Your task to perform on an android device: turn off wifi Image 0: 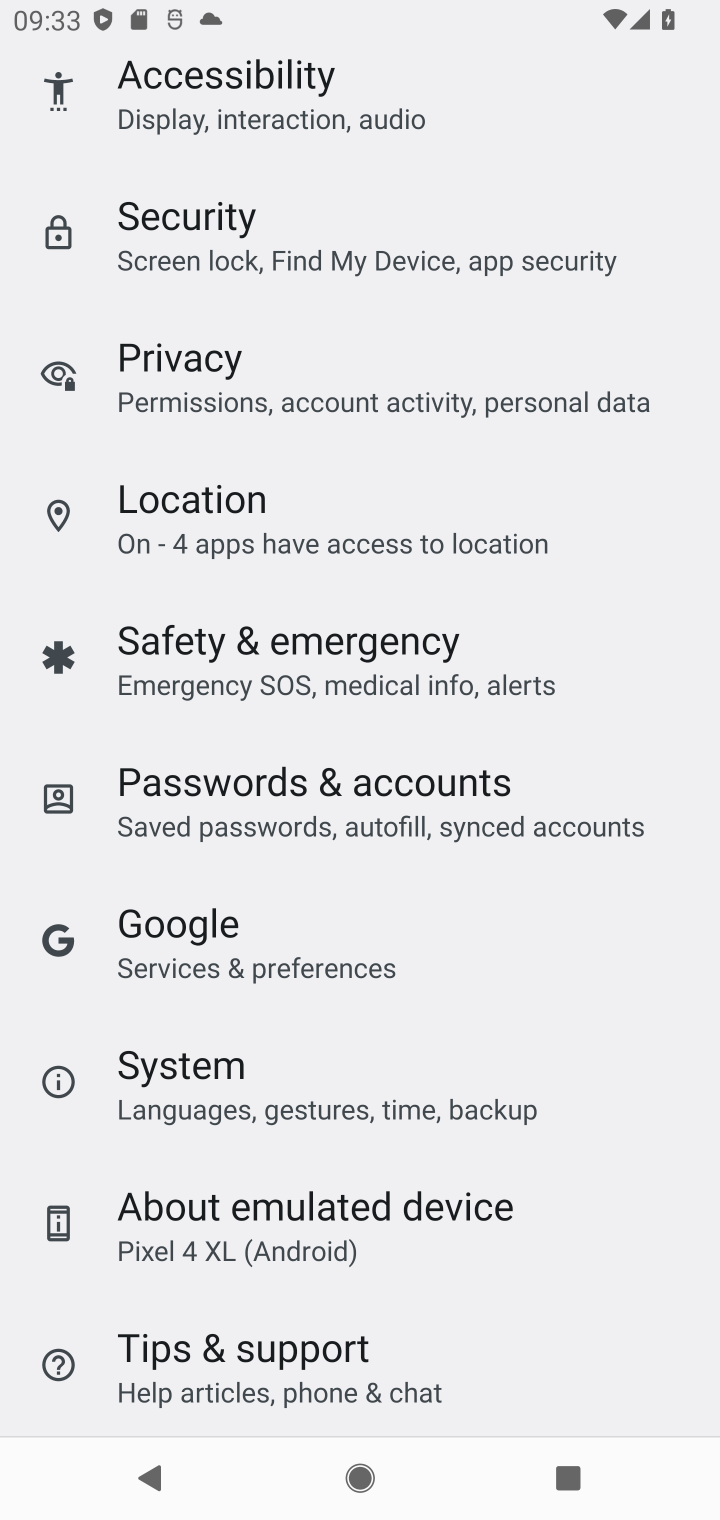
Step 0: drag from (347, 296) to (282, 1367)
Your task to perform on an android device: turn off wifi Image 1: 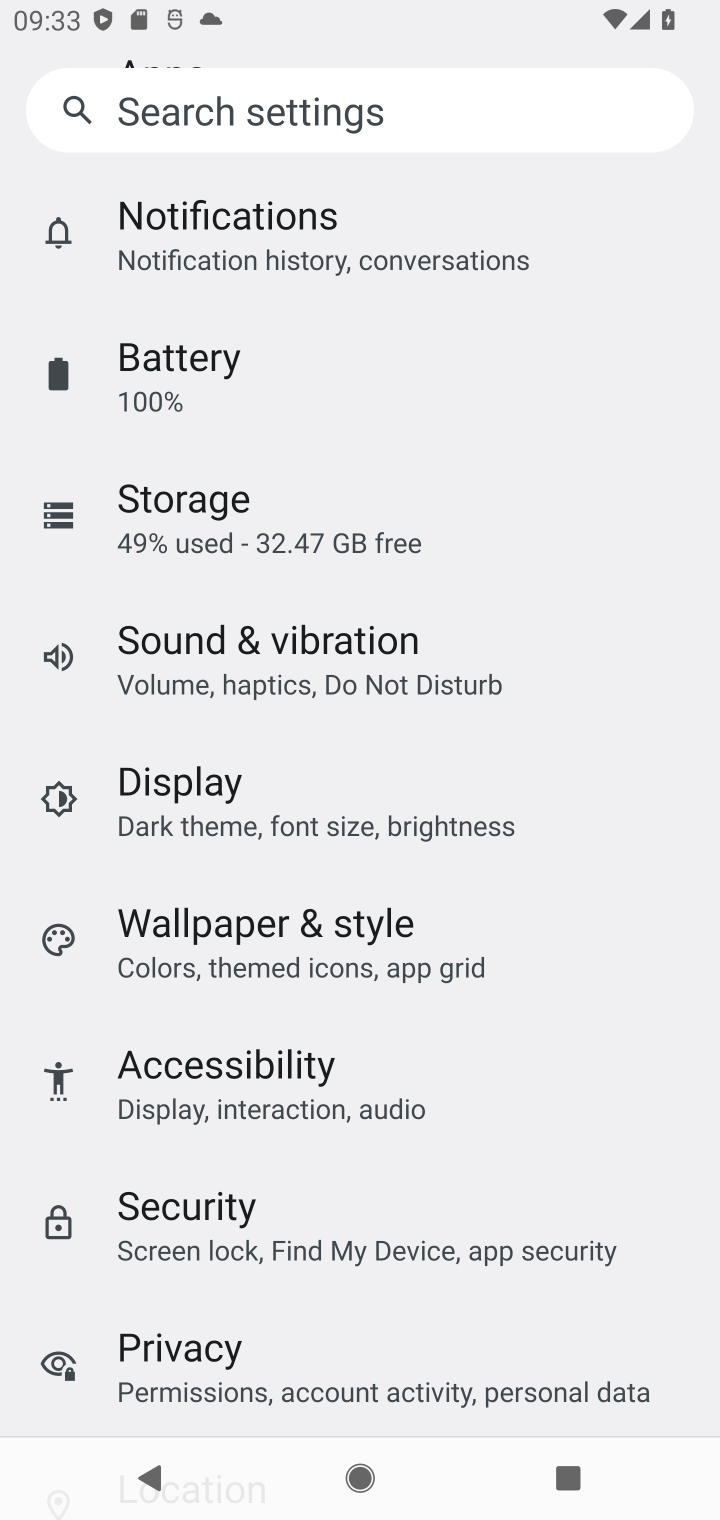
Step 1: drag from (272, 289) to (344, 1364)
Your task to perform on an android device: turn off wifi Image 2: 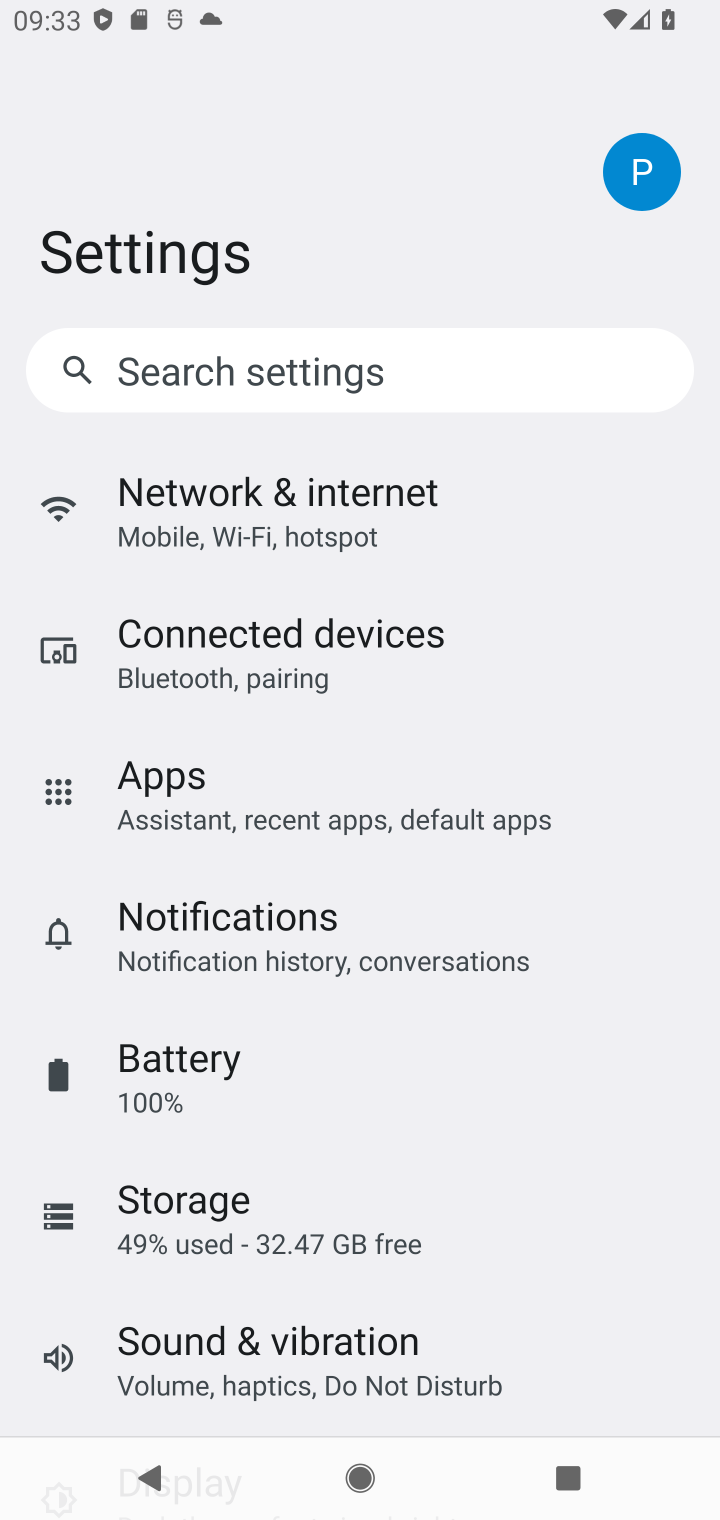
Step 2: click (274, 517)
Your task to perform on an android device: turn off wifi Image 3: 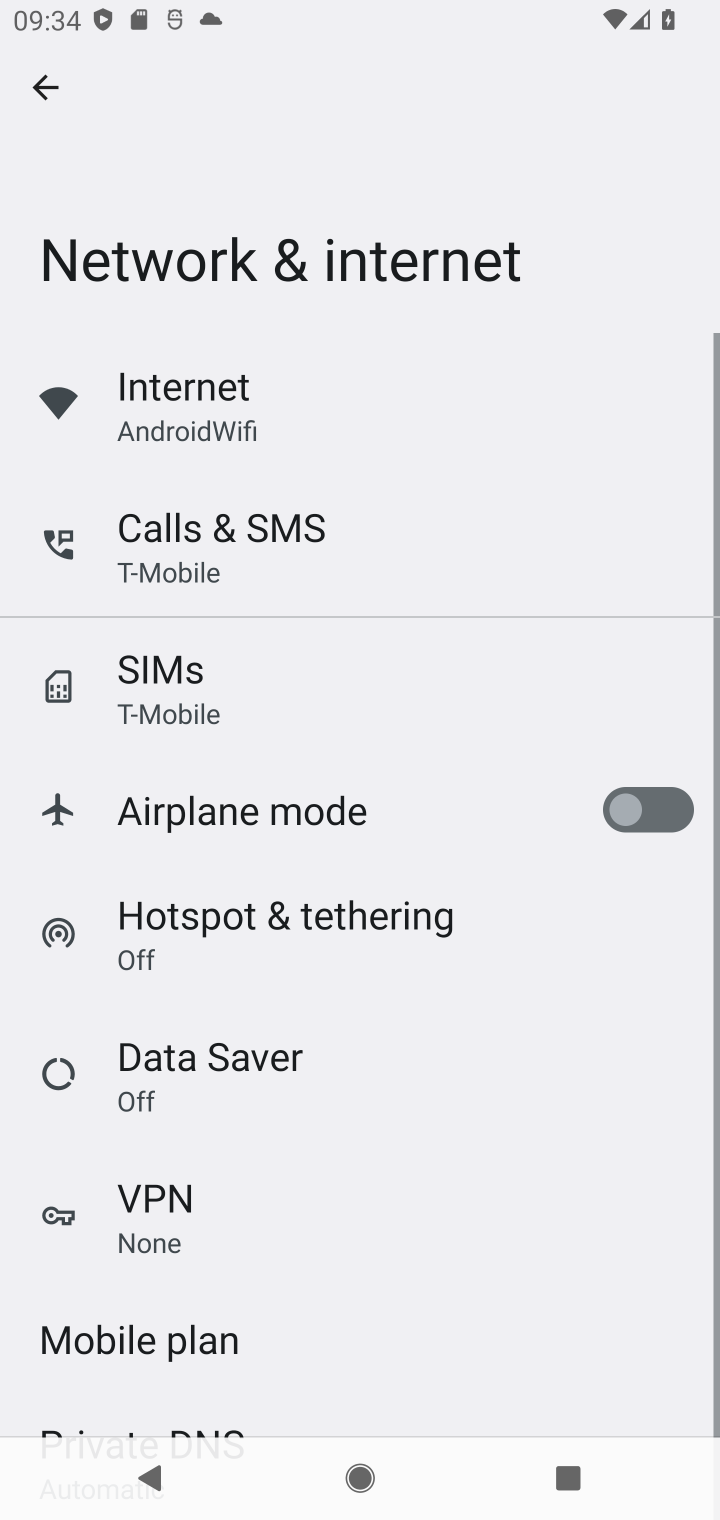
Step 3: click (185, 400)
Your task to perform on an android device: turn off wifi Image 4: 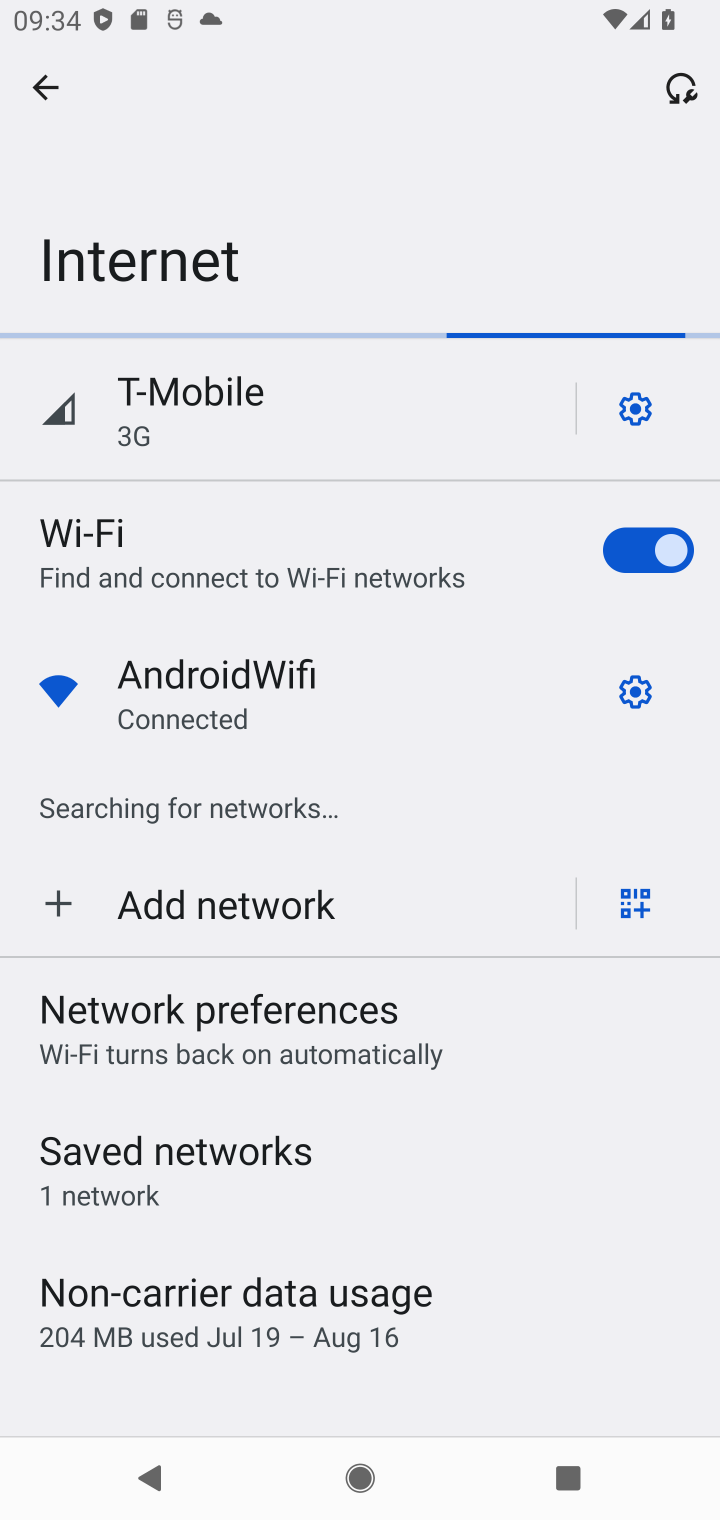
Step 4: click (656, 552)
Your task to perform on an android device: turn off wifi Image 5: 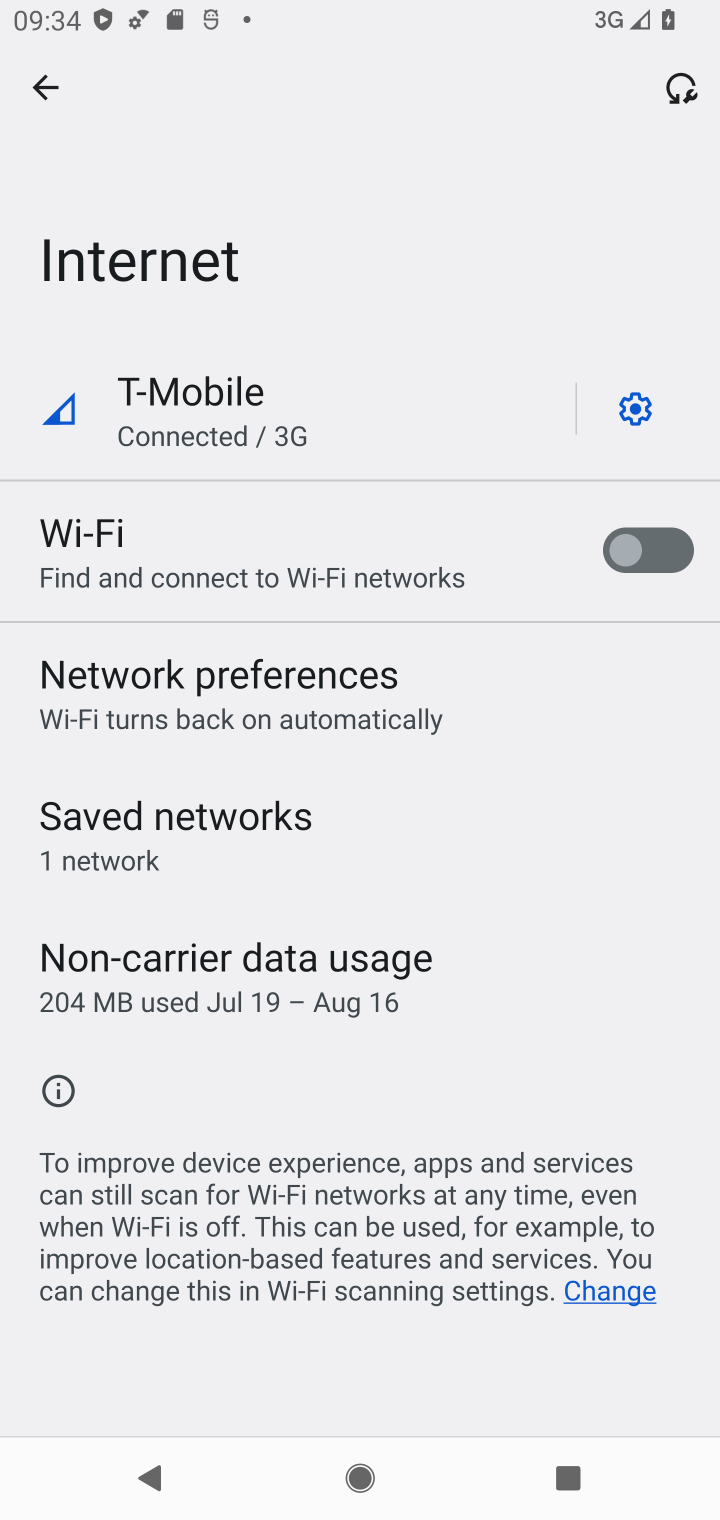
Step 5: task complete